Your task to perform on an android device: How big is the universe? Image 0: 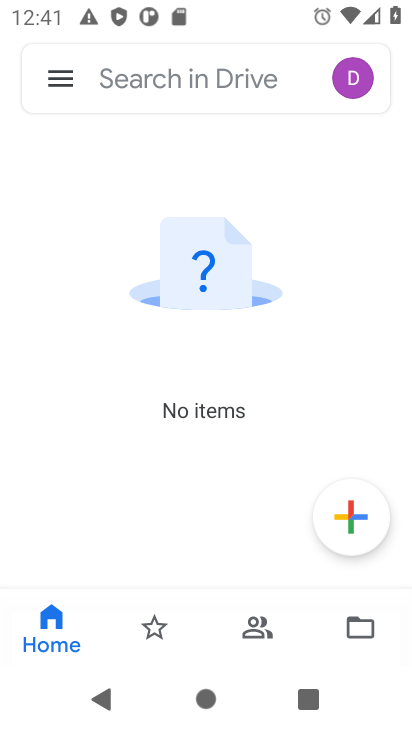
Step 0: press home button
Your task to perform on an android device: How big is the universe? Image 1: 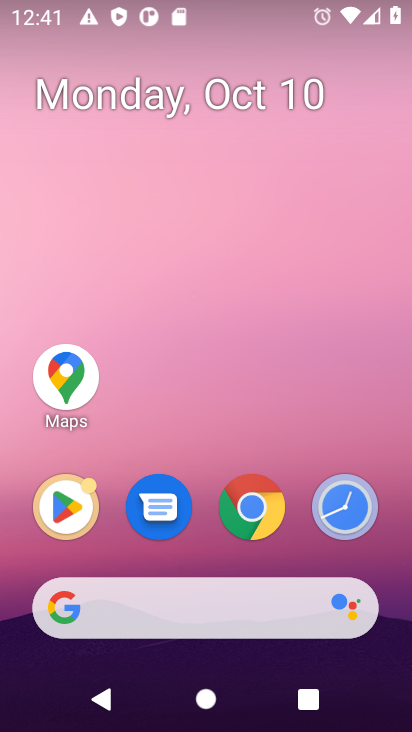
Step 1: click (215, 607)
Your task to perform on an android device: How big is the universe? Image 2: 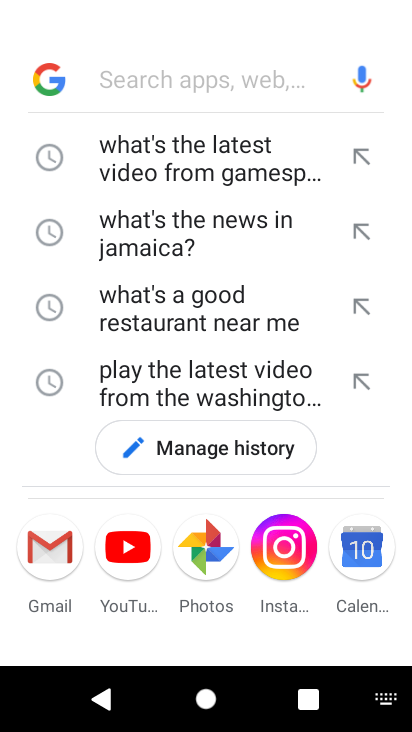
Step 2: type "How big is the universe"
Your task to perform on an android device: How big is the universe? Image 3: 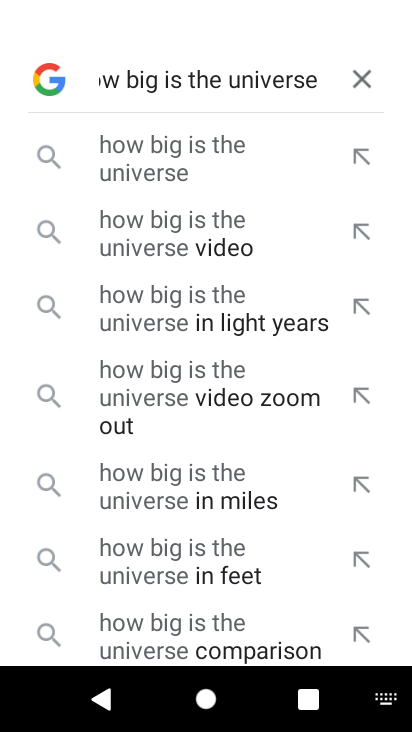
Step 3: press enter
Your task to perform on an android device: How big is the universe? Image 4: 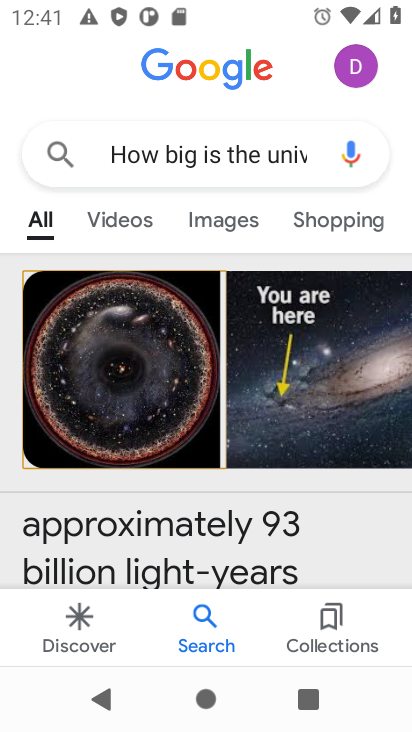
Step 4: task complete